Your task to perform on an android device: add a label to a message in the gmail app Image 0: 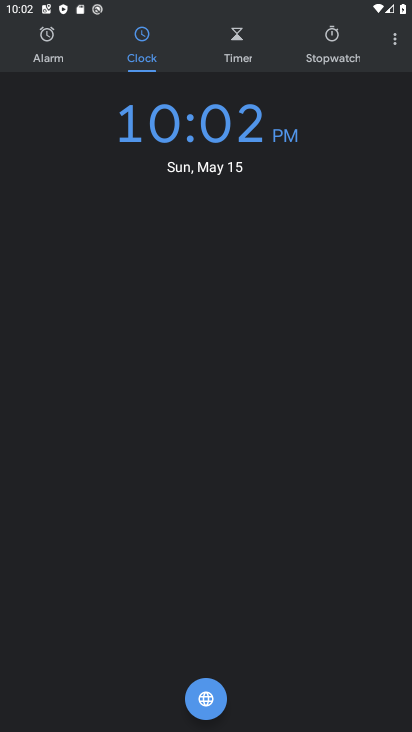
Step 0: press home button
Your task to perform on an android device: add a label to a message in the gmail app Image 1: 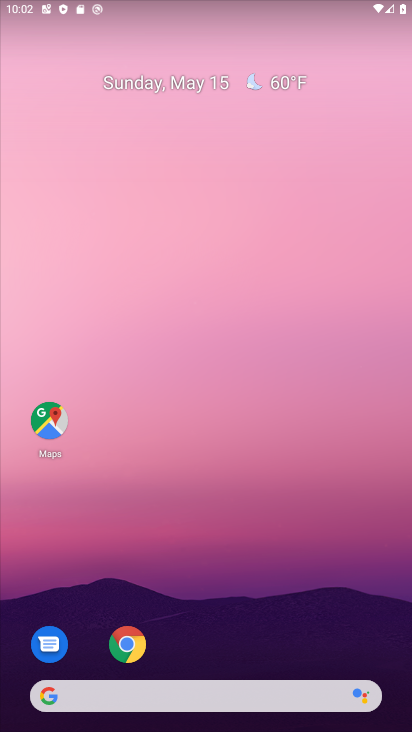
Step 1: drag from (222, 647) to (236, 271)
Your task to perform on an android device: add a label to a message in the gmail app Image 2: 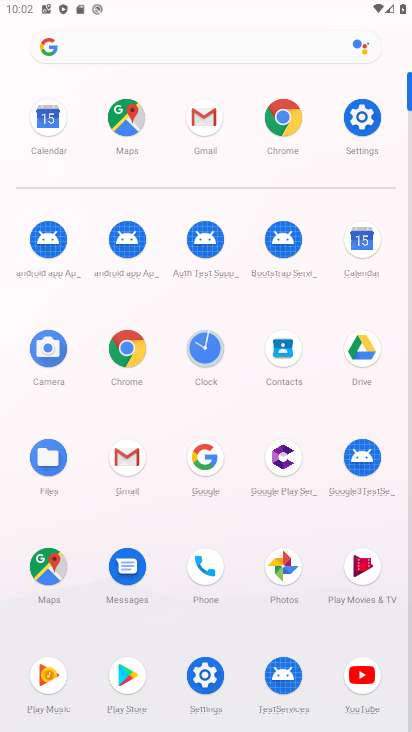
Step 2: click (210, 123)
Your task to perform on an android device: add a label to a message in the gmail app Image 3: 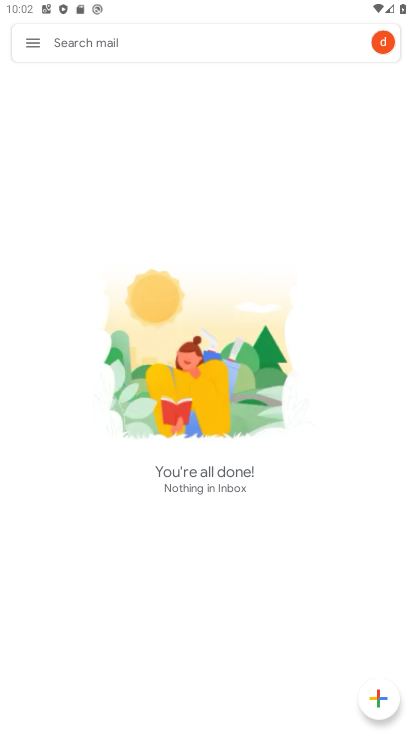
Step 3: task complete